Your task to perform on an android device: Open maps Image 0: 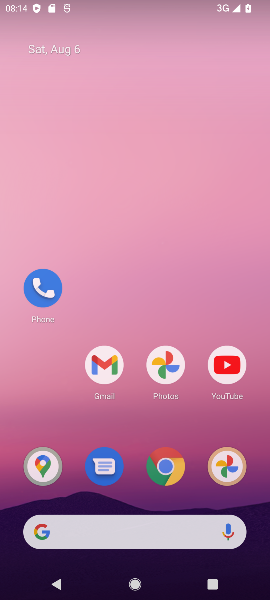
Step 0: press home button
Your task to perform on an android device: Open maps Image 1: 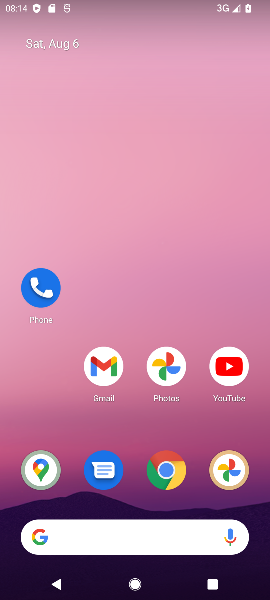
Step 1: click (39, 485)
Your task to perform on an android device: Open maps Image 2: 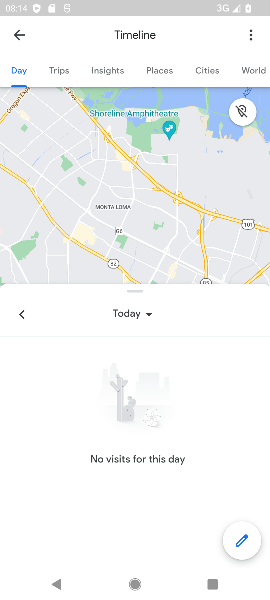
Step 2: task complete